Your task to perform on an android device: Open battery settings Image 0: 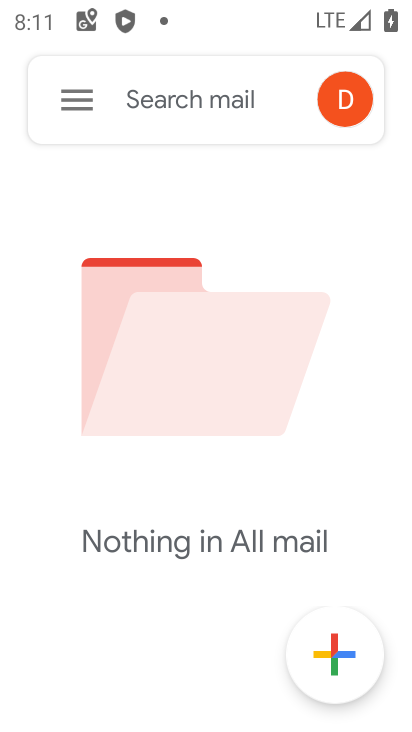
Step 0: press home button
Your task to perform on an android device: Open battery settings Image 1: 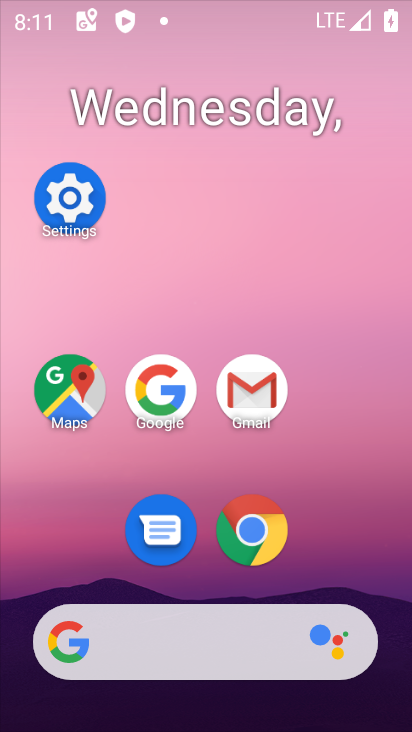
Step 1: click (63, 167)
Your task to perform on an android device: Open battery settings Image 2: 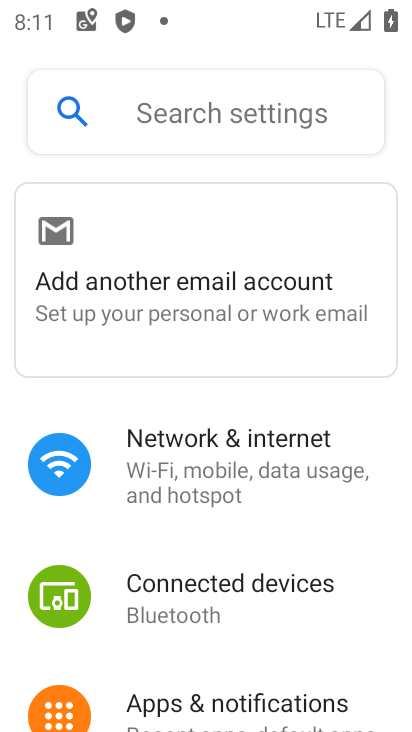
Step 2: drag from (300, 646) to (293, 128)
Your task to perform on an android device: Open battery settings Image 3: 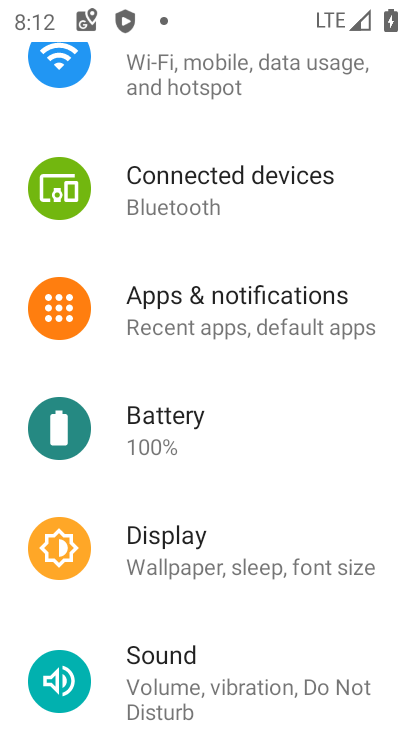
Step 3: click (233, 446)
Your task to perform on an android device: Open battery settings Image 4: 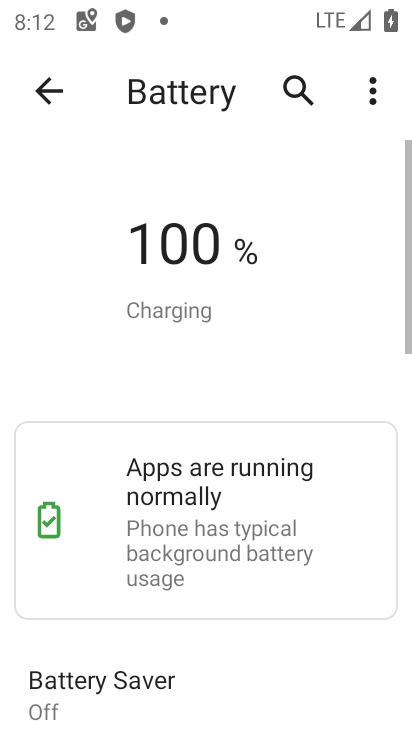
Step 4: task complete